Your task to perform on an android device: allow cookies in the chrome app Image 0: 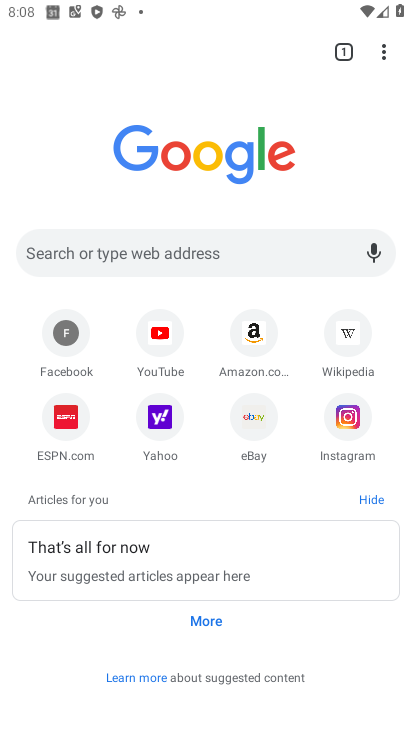
Step 0: press home button
Your task to perform on an android device: allow cookies in the chrome app Image 1: 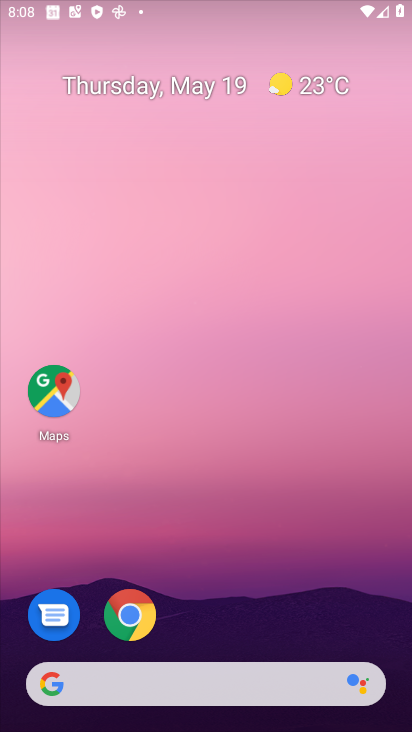
Step 1: drag from (345, 611) to (253, 77)
Your task to perform on an android device: allow cookies in the chrome app Image 2: 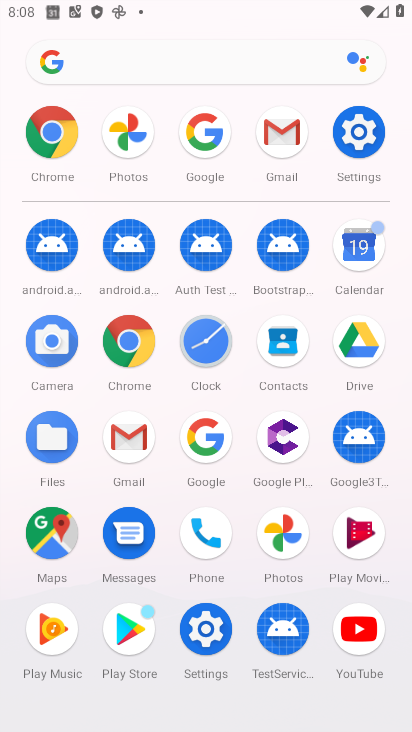
Step 2: click (36, 131)
Your task to perform on an android device: allow cookies in the chrome app Image 3: 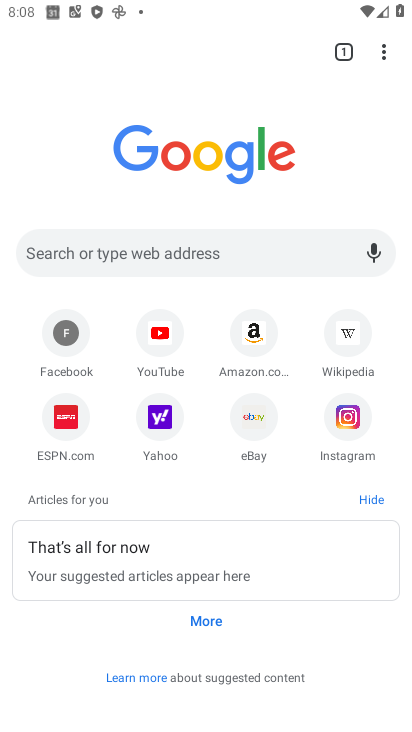
Step 3: click (379, 46)
Your task to perform on an android device: allow cookies in the chrome app Image 4: 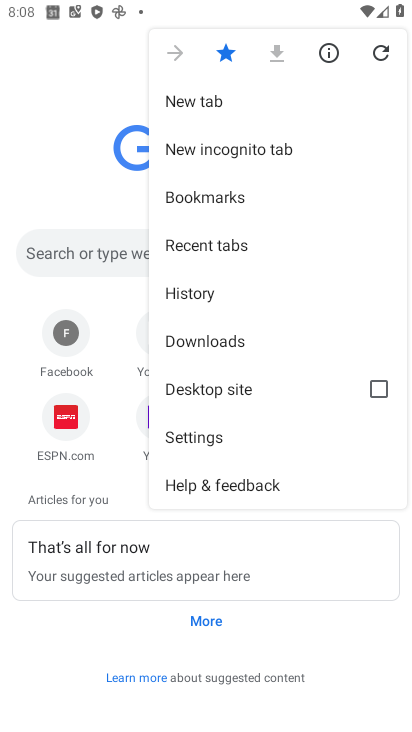
Step 4: click (234, 292)
Your task to perform on an android device: allow cookies in the chrome app Image 5: 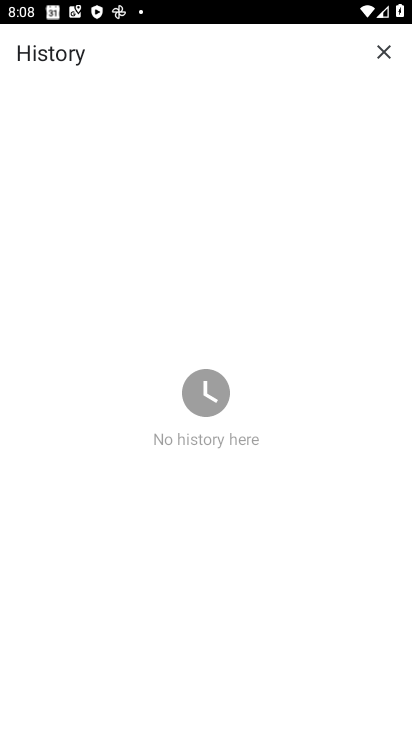
Step 5: task complete